Your task to perform on an android device: Go to Wikipedia Image 0: 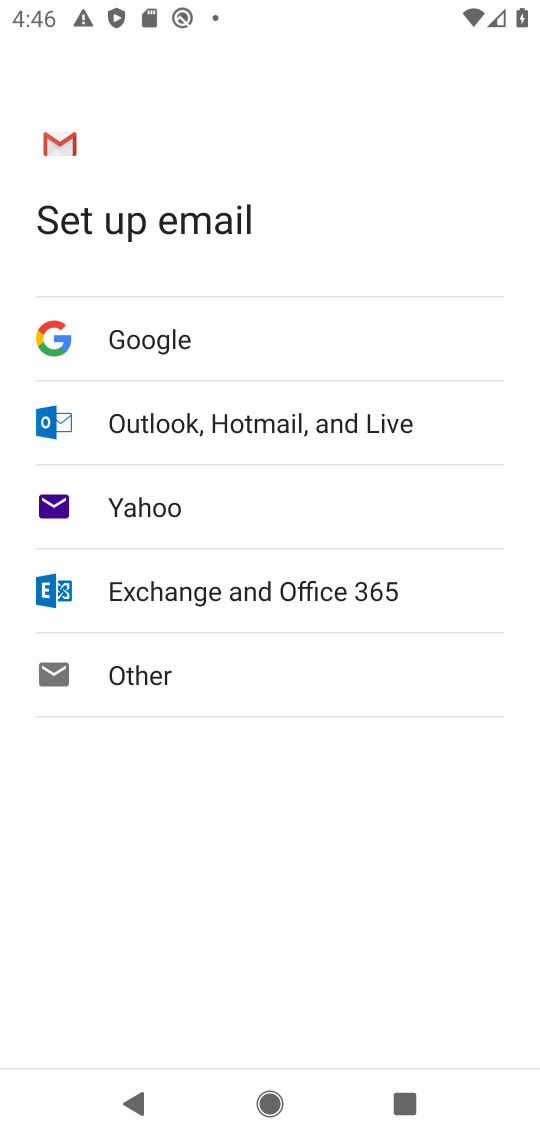
Step 0: press home button
Your task to perform on an android device: Go to Wikipedia Image 1: 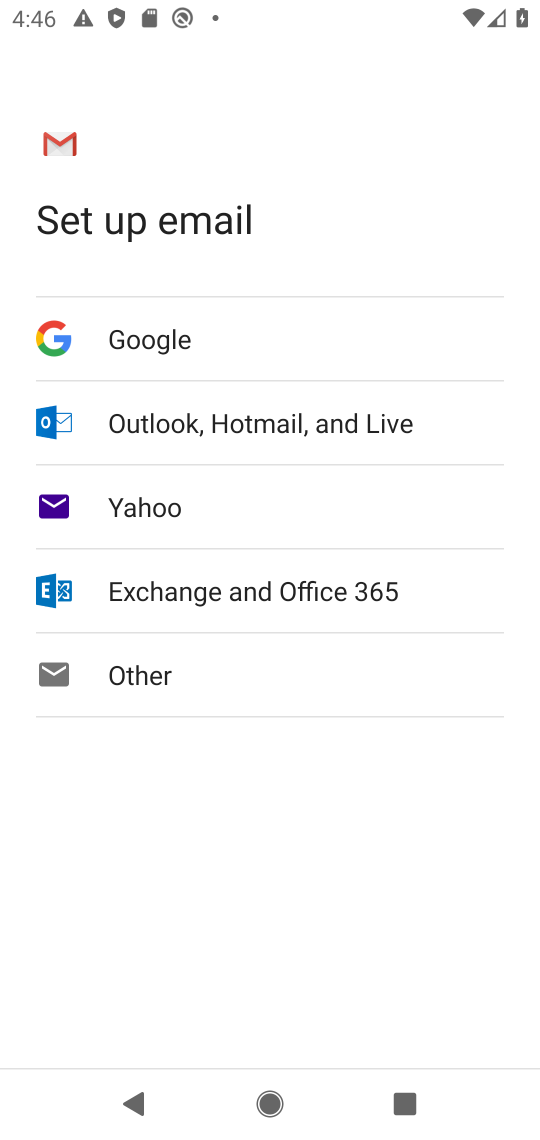
Step 1: press home button
Your task to perform on an android device: Go to Wikipedia Image 2: 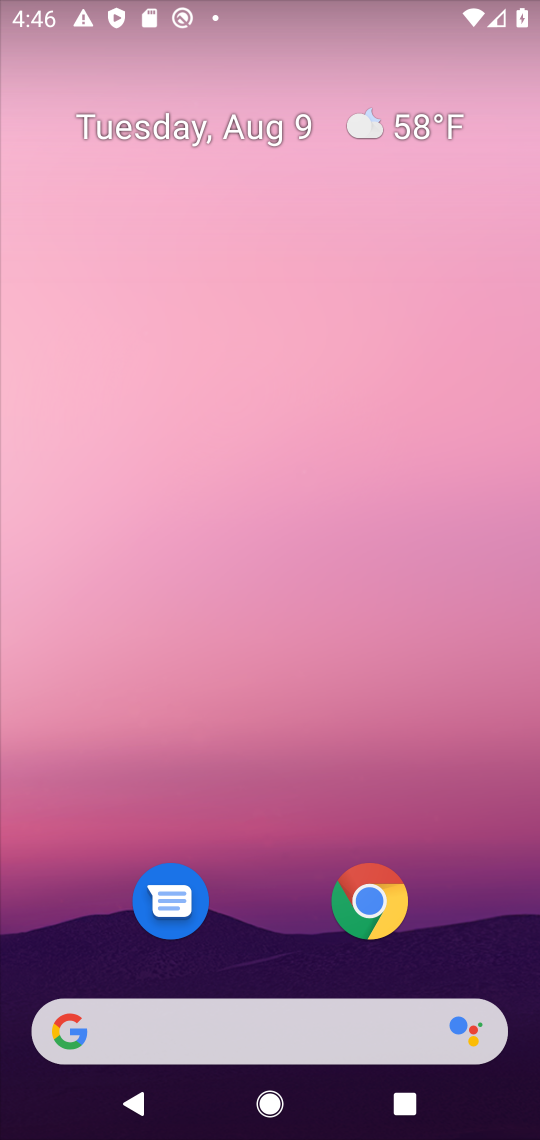
Step 2: press home button
Your task to perform on an android device: Go to Wikipedia Image 3: 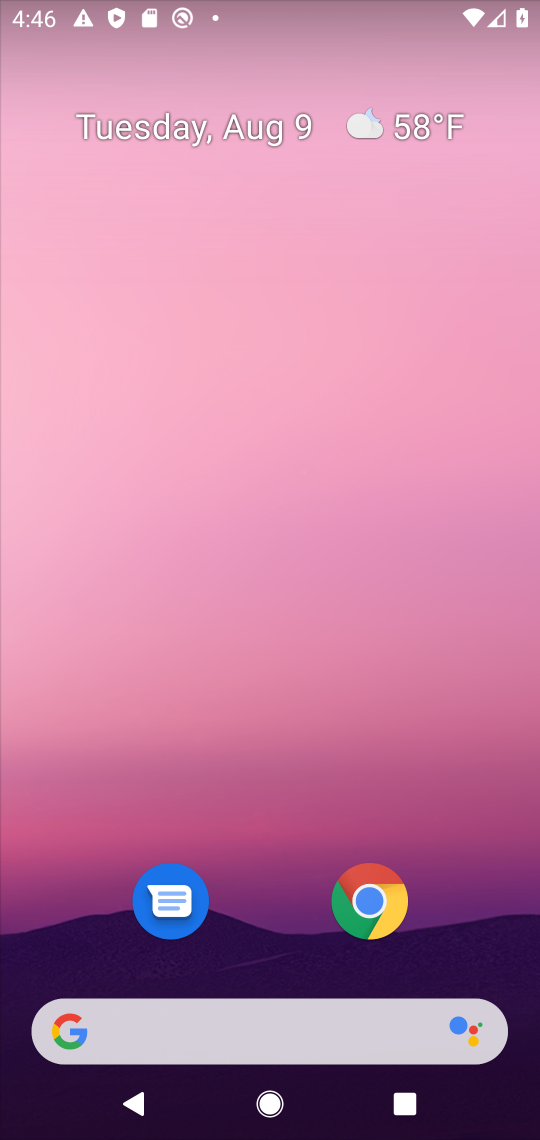
Step 3: press home button
Your task to perform on an android device: Go to Wikipedia Image 4: 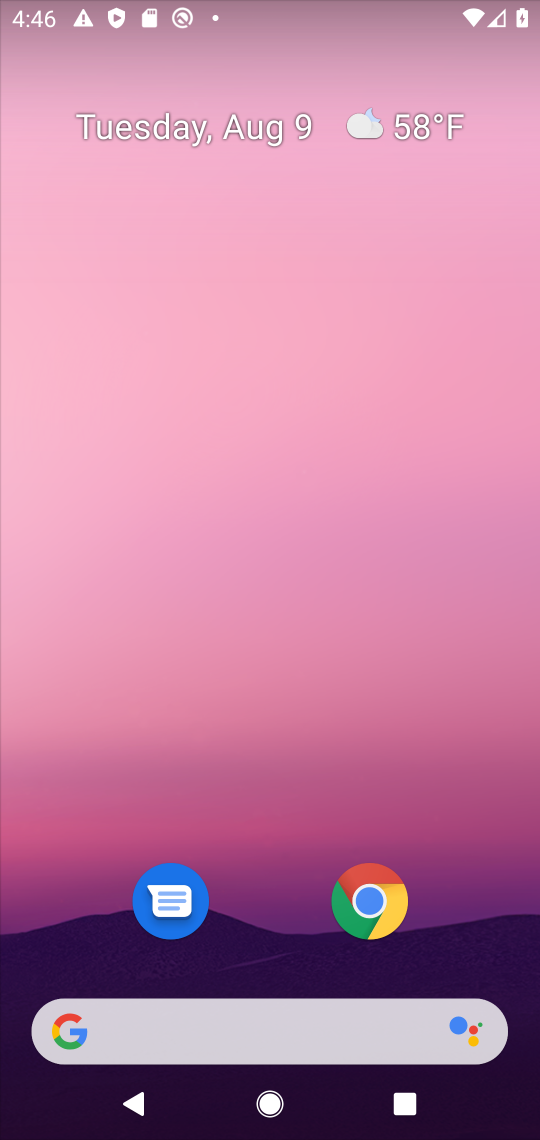
Step 4: press home button
Your task to perform on an android device: Go to Wikipedia Image 5: 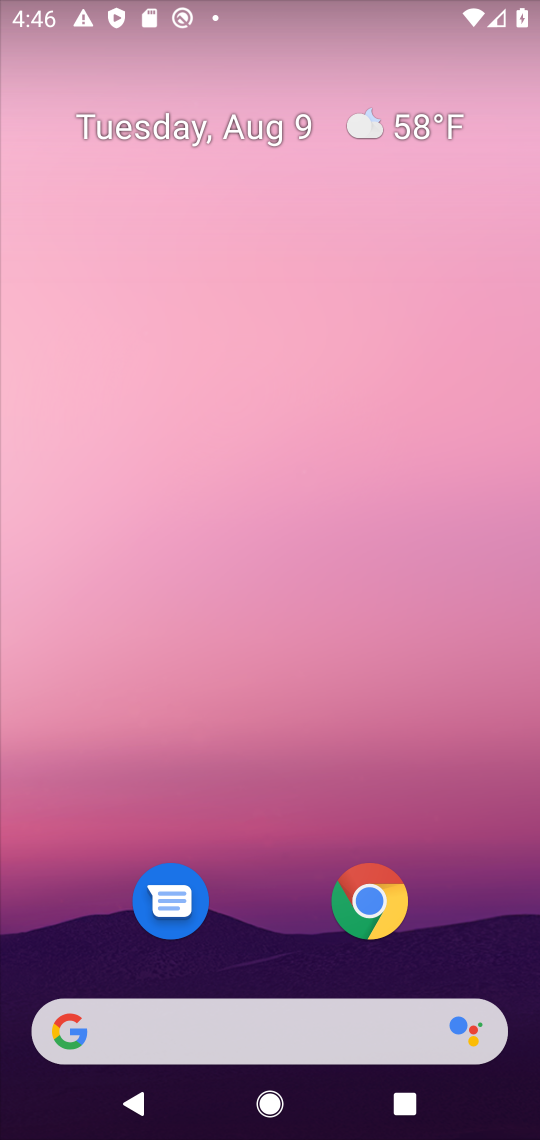
Step 5: click (382, 879)
Your task to perform on an android device: Go to Wikipedia Image 6: 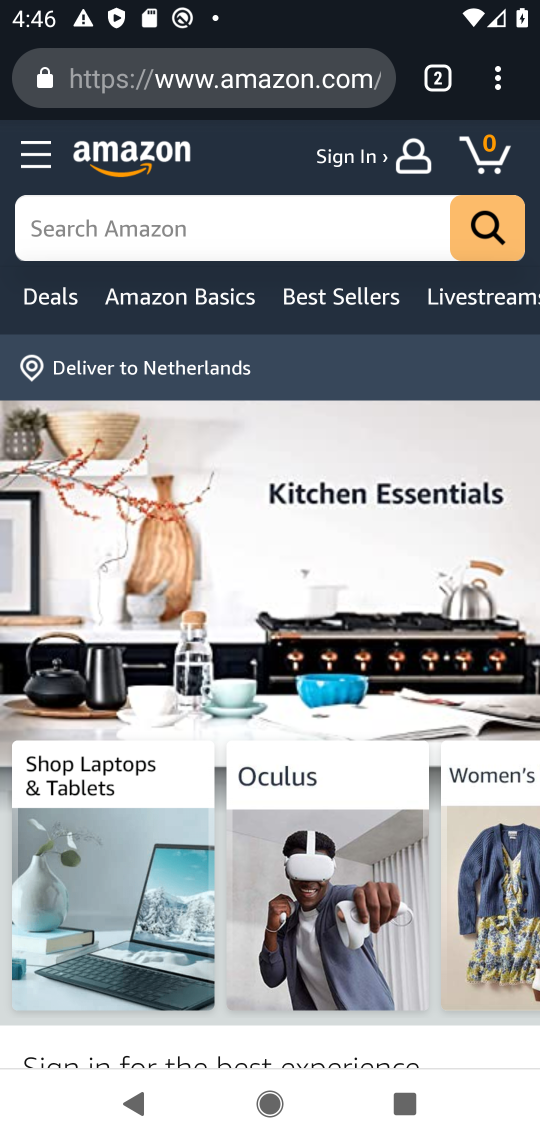
Step 6: click (219, 65)
Your task to perform on an android device: Go to Wikipedia Image 7: 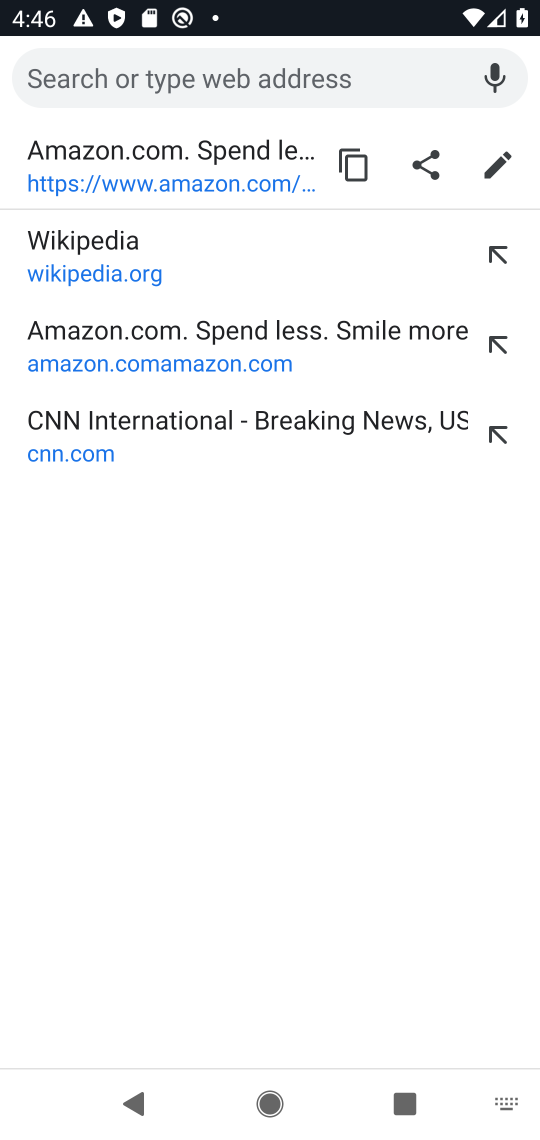
Step 7: click (219, 78)
Your task to perform on an android device: Go to Wikipedia Image 8: 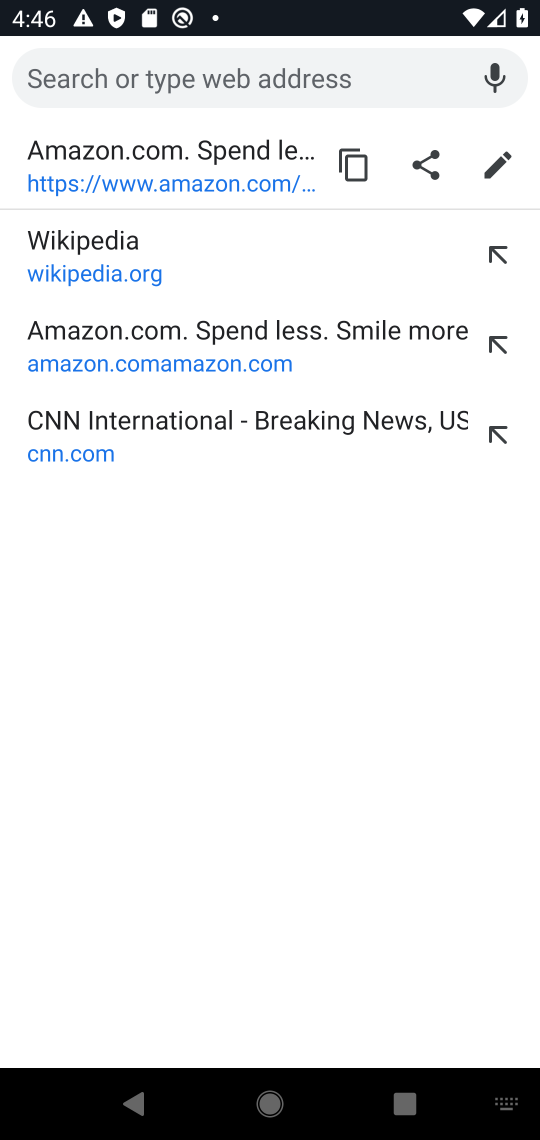
Step 8: type "wikipedia"
Your task to perform on an android device: Go to Wikipedia Image 9: 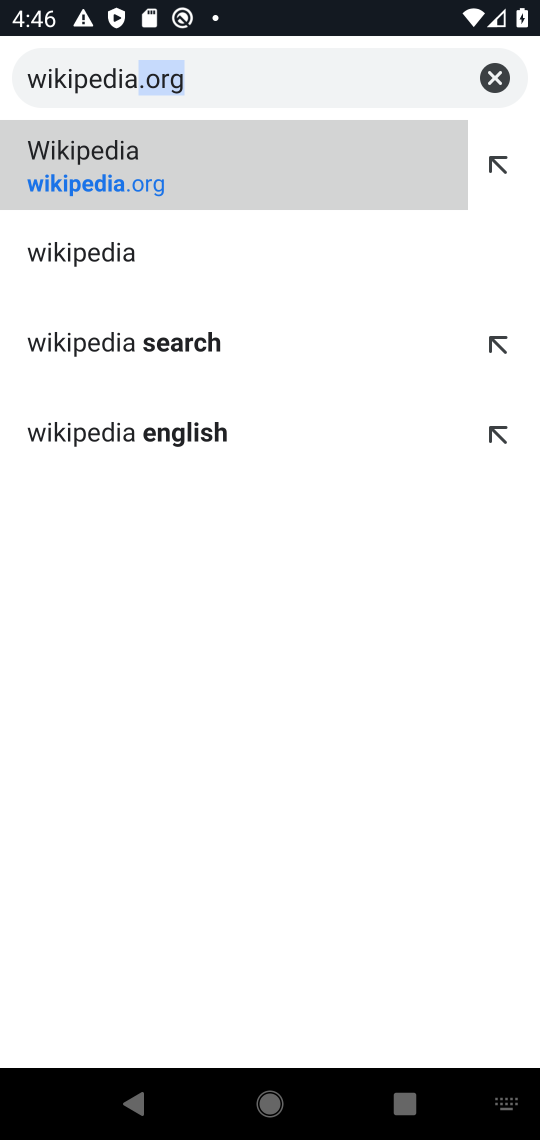
Step 9: click (101, 182)
Your task to perform on an android device: Go to Wikipedia Image 10: 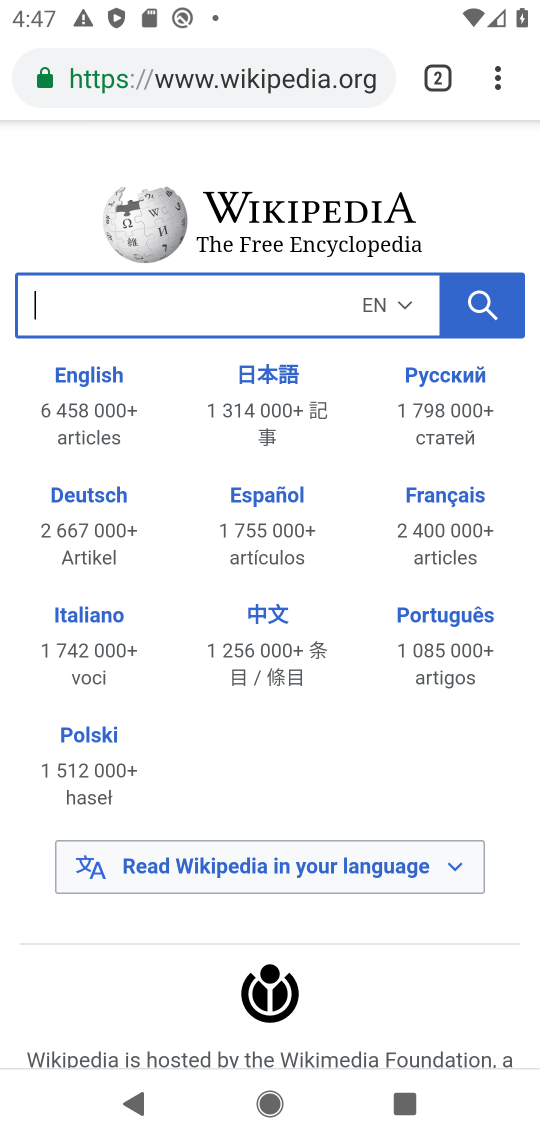
Step 10: task complete